Your task to perform on an android device: Do I have any events tomorrow? Image 0: 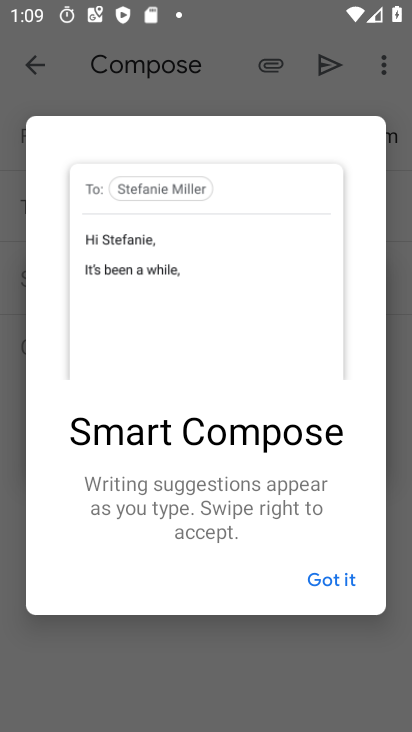
Step 0: press home button
Your task to perform on an android device: Do I have any events tomorrow? Image 1: 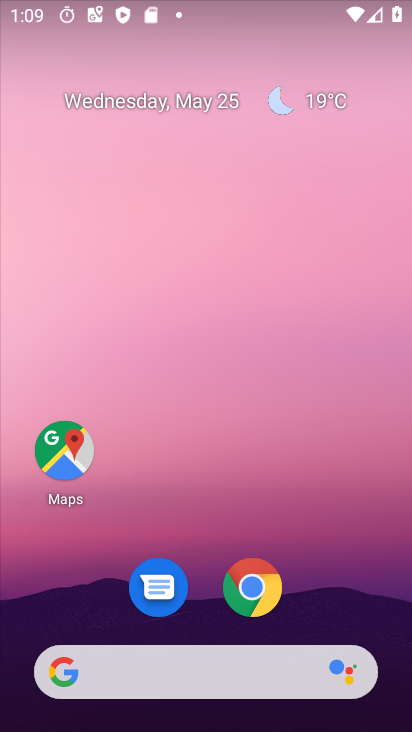
Step 1: drag from (228, 716) to (232, 199)
Your task to perform on an android device: Do I have any events tomorrow? Image 2: 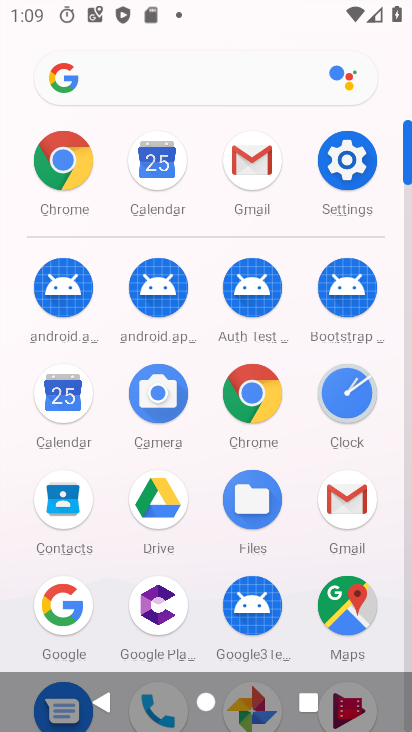
Step 2: click (63, 399)
Your task to perform on an android device: Do I have any events tomorrow? Image 3: 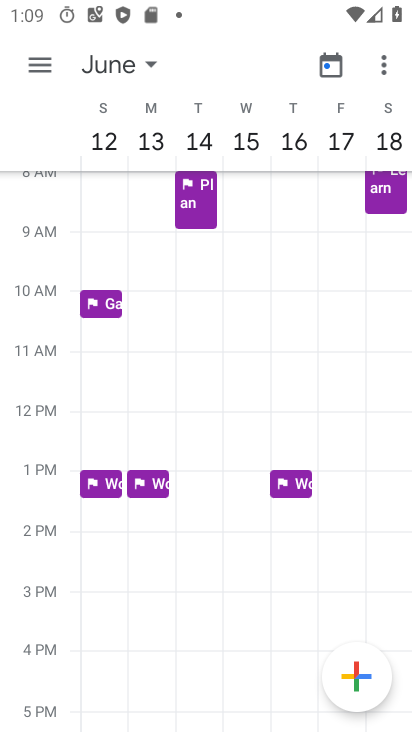
Step 3: drag from (111, 137) to (383, 102)
Your task to perform on an android device: Do I have any events tomorrow? Image 4: 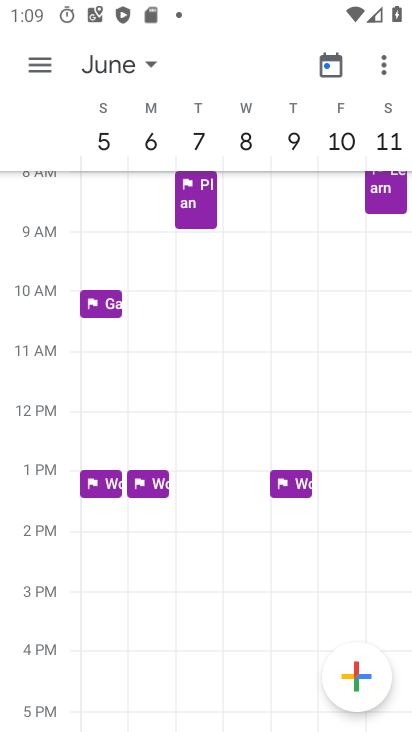
Step 4: click (147, 60)
Your task to perform on an android device: Do I have any events tomorrow? Image 5: 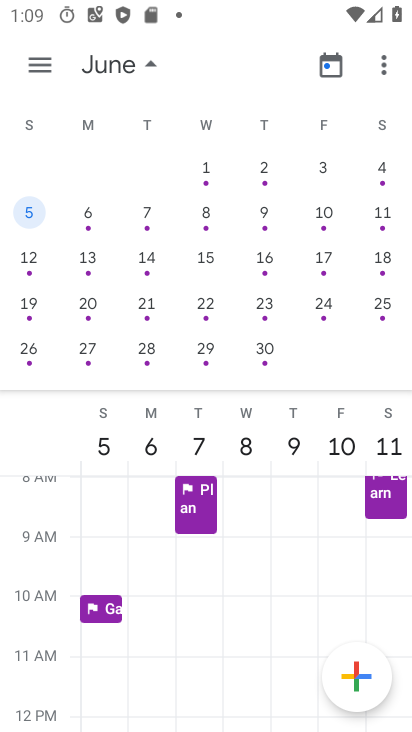
Step 5: drag from (43, 257) to (411, 258)
Your task to perform on an android device: Do I have any events tomorrow? Image 6: 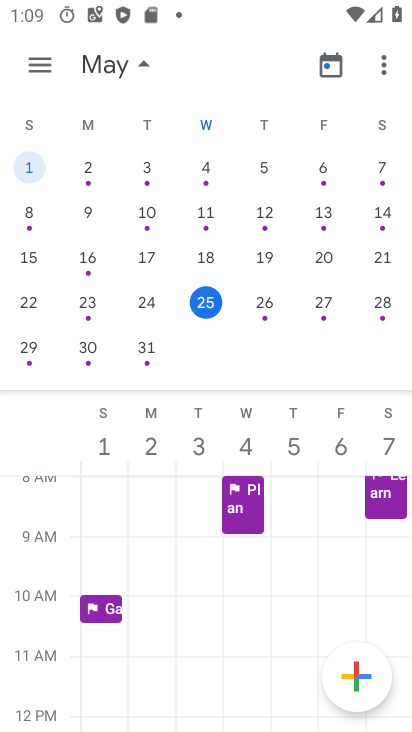
Step 6: click (263, 301)
Your task to perform on an android device: Do I have any events tomorrow? Image 7: 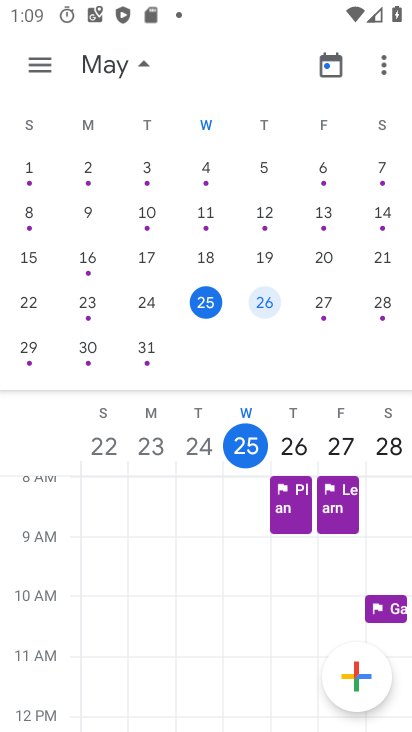
Step 7: click (240, 444)
Your task to perform on an android device: Do I have any events tomorrow? Image 8: 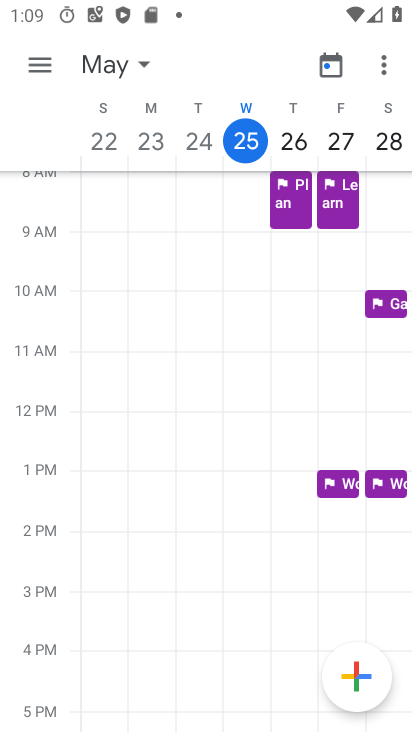
Step 8: click (299, 133)
Your task to perform on an android device: Do I have any events tomorrow? Image 9: 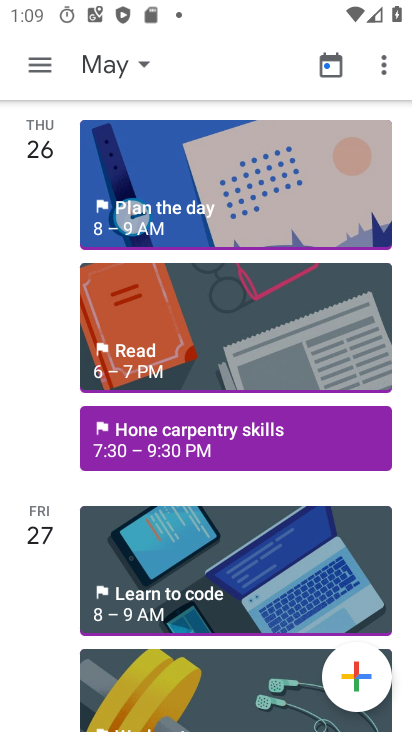
Step 9: task complete